Your task to perform on an android device: Is it going to rain this weekend? Image 0: 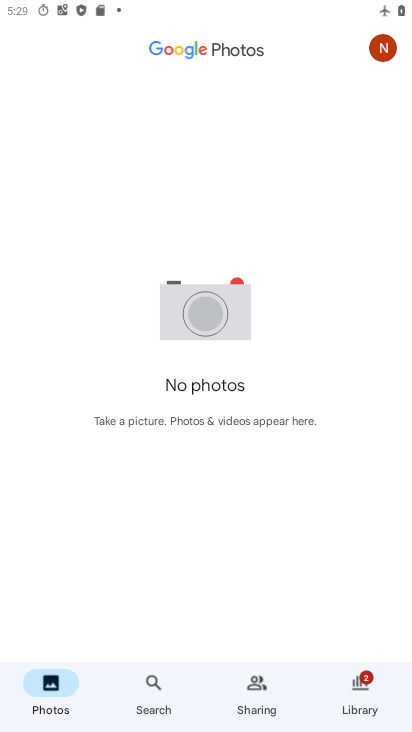
Step 0: press home button
Your task to perform on an android device: Is it going to rain this weekend? Image 1: 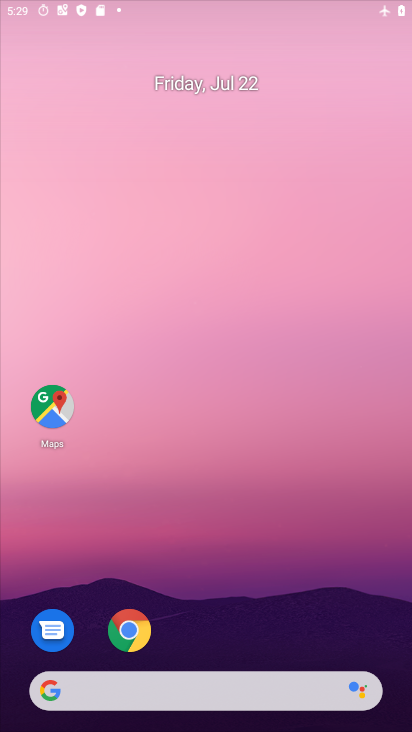
Step 1: drag from (272, 587) to (241, 58)
Your task to perform on an android device: Is it going to rain this weekend? Image 2: 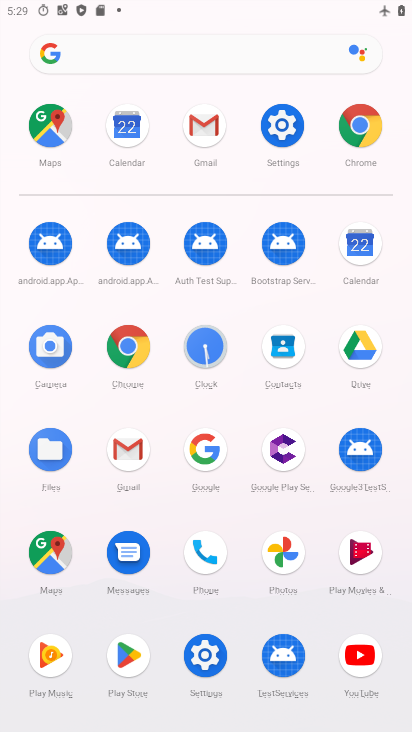
Step 2: click (349, 247)
Your task to perform on an android device: Is it going to rain this weekend? Image 3: 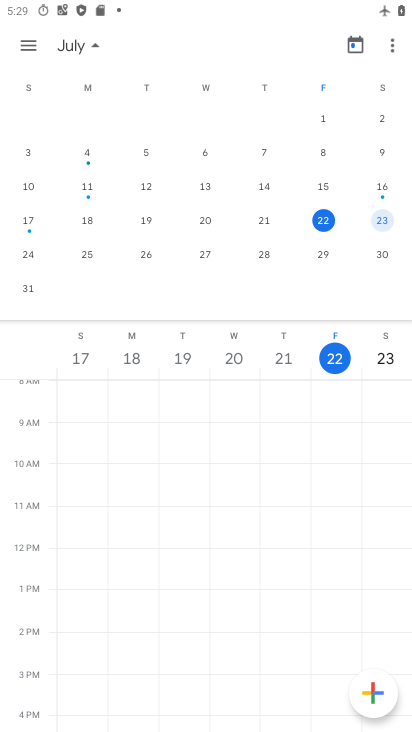
Step 3: press home button
Your task to perform on an android device: Is it going to rain this weekend? Image 4: 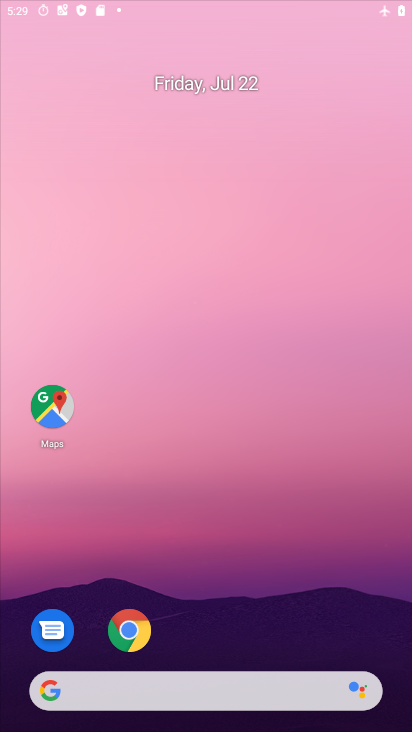
Step 4: drag from (214, 203) to (230, 27)
Your task to perform on an android device: Is it going to rain this weekend? Image 5: 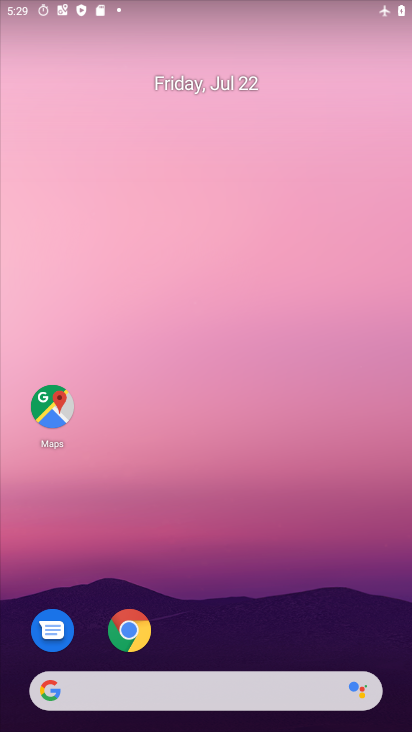
Step 5: drag from (192, 663) to (213, 79)
Your task to perform on an android device: Is it going to rain this weekend? Image 6: 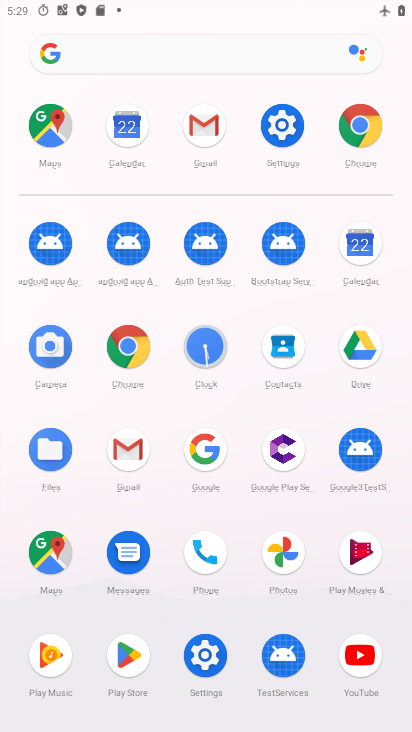
Step 6: click (132, 351)
Your task to perform on an android device: Is it going to rain this weekend? Image 7: 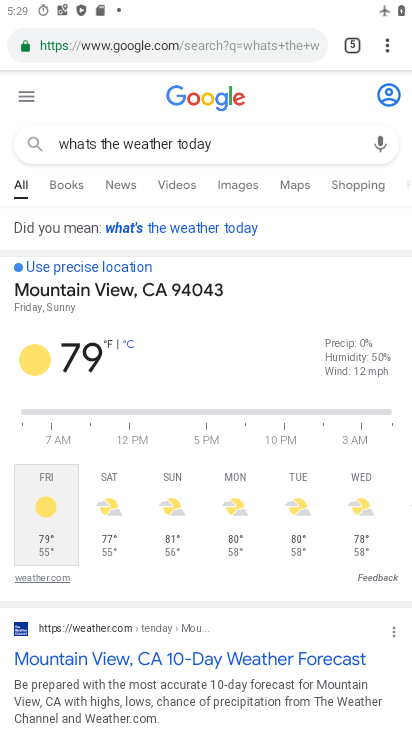
Step 7: click (213, 48)
Your task to perform on an android device: Is it going to rain this weekend? Image 8: 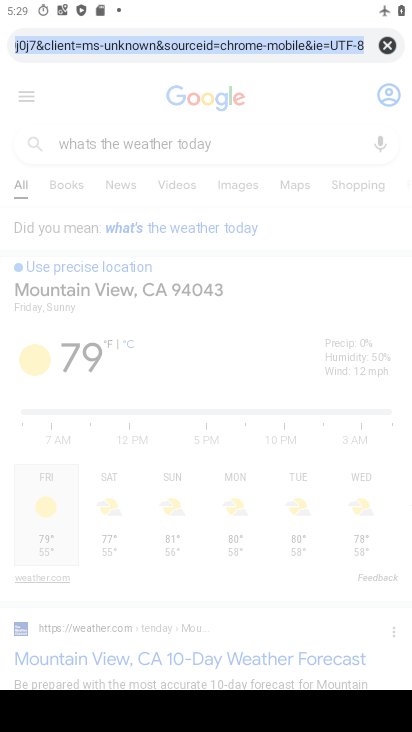
Step 8: type "going to rain this weekend"
Your task to perform on an android device: Is it going to rain this weekend? Image 9: 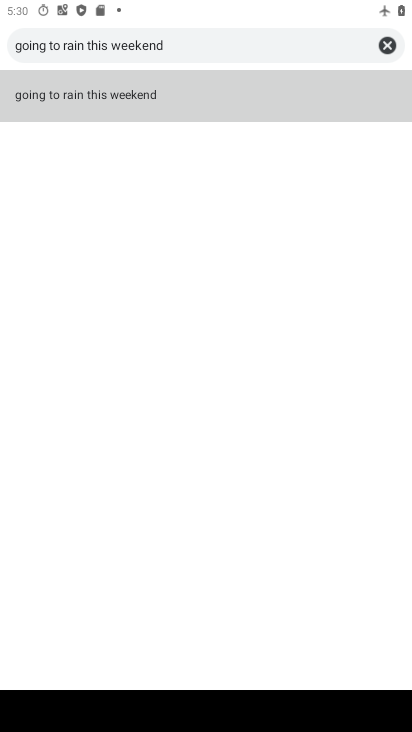
Step 9: click (232, 86)
Your task to perform on an android device: Is it going to rain this weekend? Image 10: 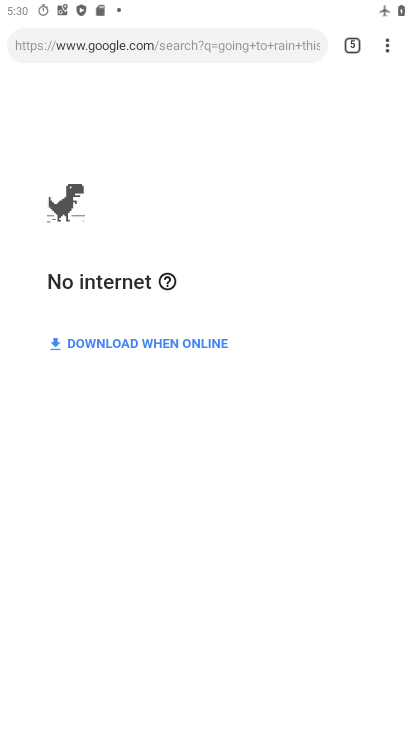
Step 10: task complete